Your task to perform on an android device: check battery use Image 0: 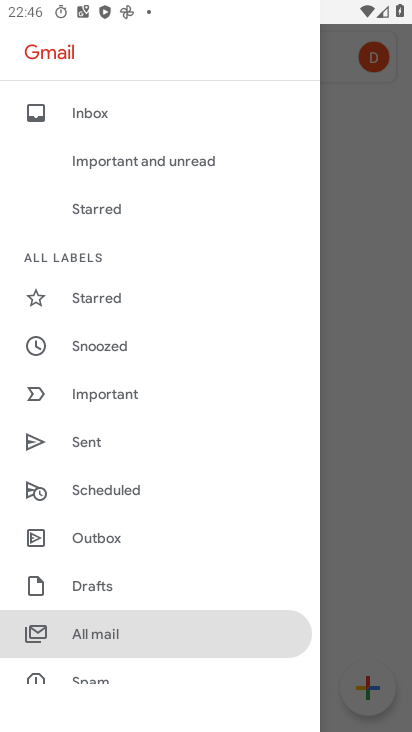
Step 0: press home button
Your task to perform on an android device: check battery use Image 1: 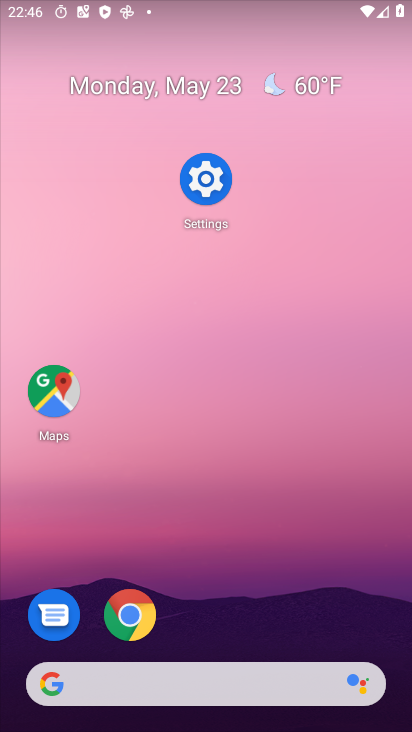
Step 1: drag from (234, 597) to (248, 77)
Your task to perform on an android device: check battery use Image 2: 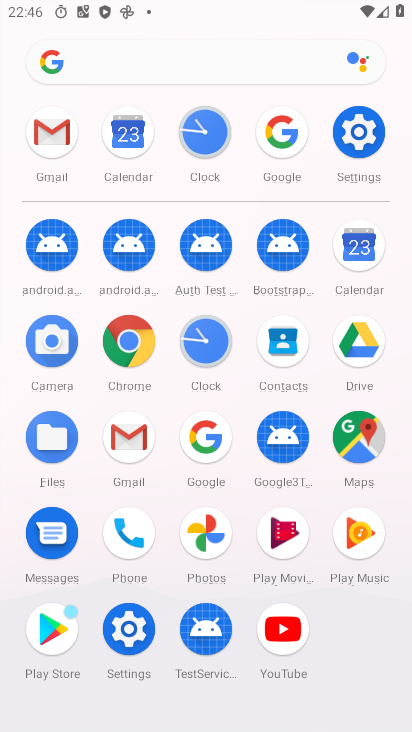
Step 2: click (362, 125)
Your task to perform on an android device: check battery use Image 3: 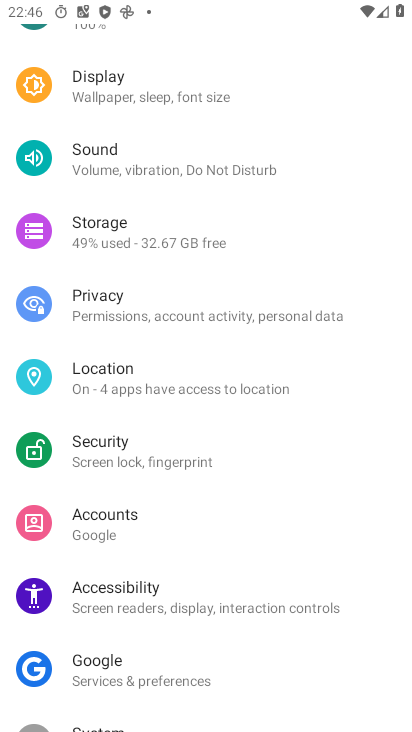
Step 3: drag from (124, 171) to (150, 450)
Your task to perform on an android device: check battery use Image 4: 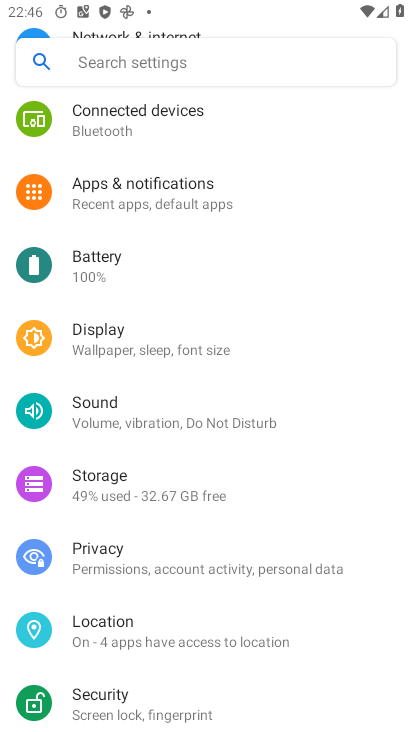
Step 4: click (112, 272)
Your task to perform on an android device: check battery use Image 5: 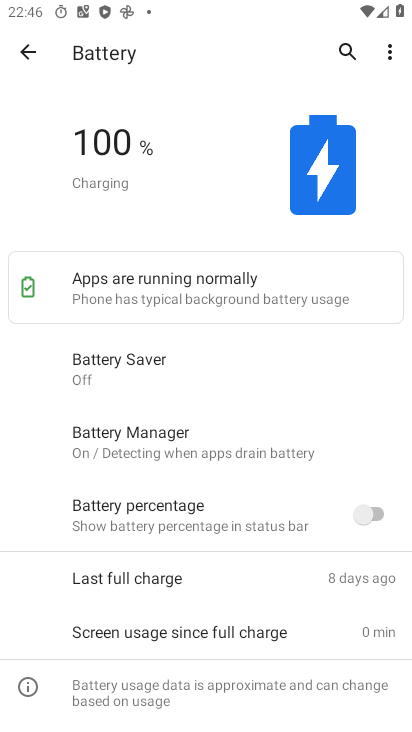
Step 5: click (386, 51)
Your task to perform on an android device: check battery use Image 6: 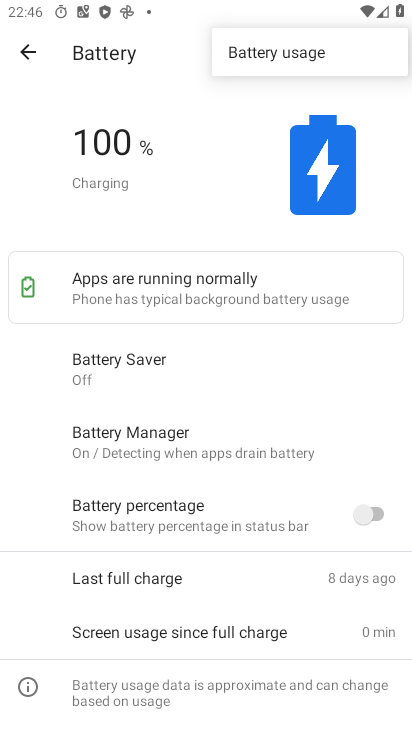
Step 6: click (253, 57)
Your task to perform on an android device: check battery use Image 7: 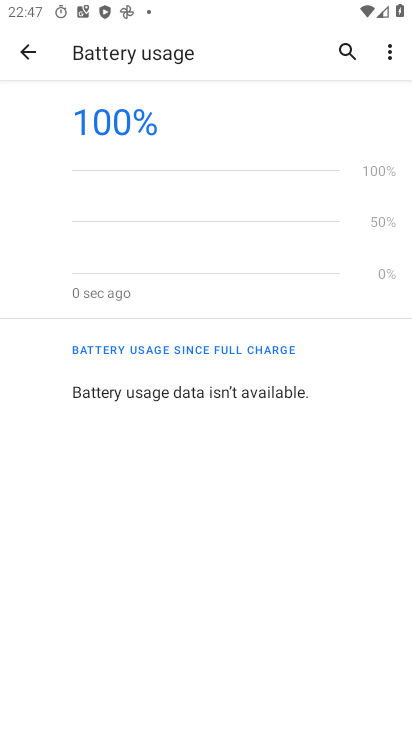
Step 7: task complete